Your task to perform on an android device: Open the calendar app, open the side menu, and click the "Day" option Image 0: 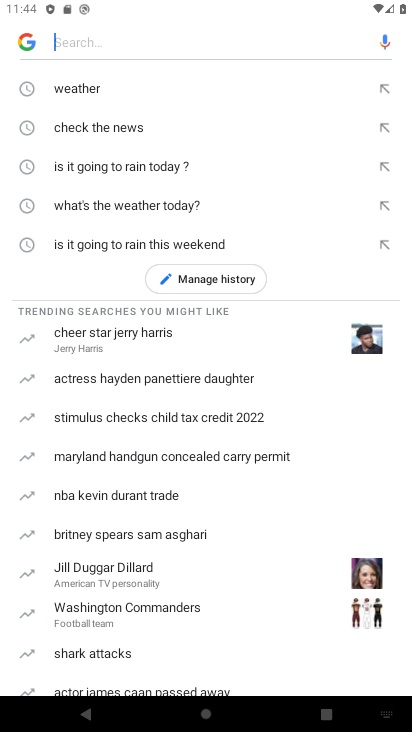
Step 0: press home button
Your task to perform on an android device: Open the calendar app, open the side menu, and click the "Day" option Image 1: 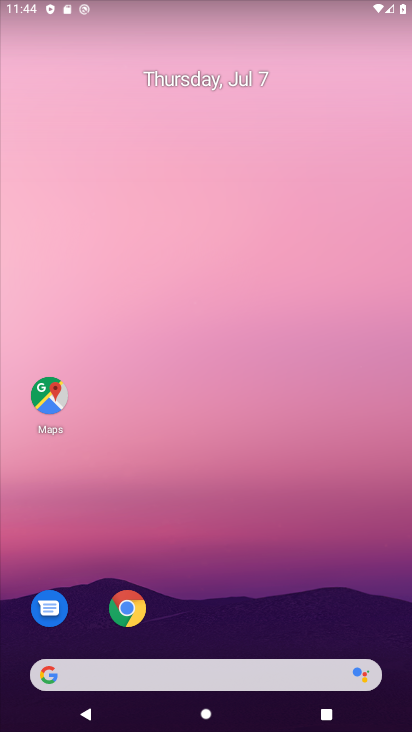
Step 1: drag from (276, 610) to (241, 3)
Your task to perform on an android device: Open the calendar app, open the side menu, and click the "Day" option Image 2: 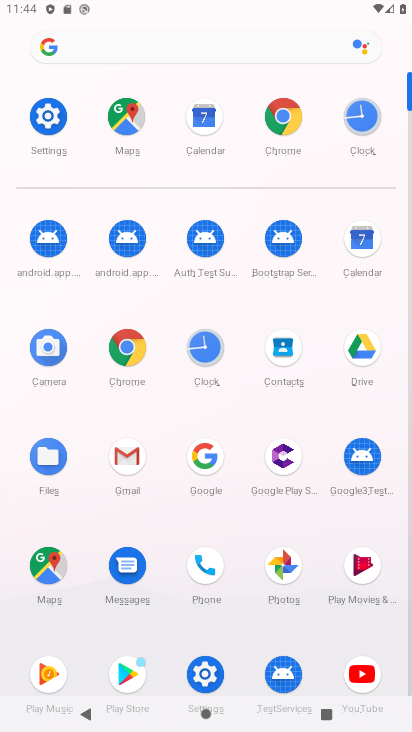
Step 2: click (360, 257)
Your task to perform on an android device: Open the calendar app, open the side menu, and click the "Day" option Image 3: 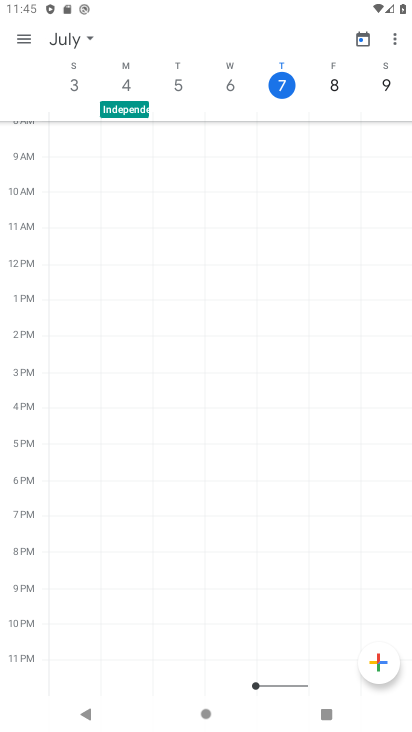
Step 3: click (24, 51)
Your task to perform on an android device: Open the calendar app, open the side menu, and click the "Day" option Image 4: 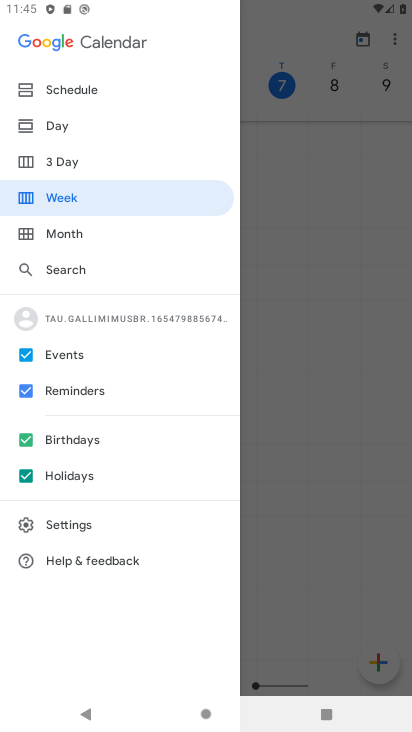
Step 4: click (57, 127)
Your task to perform on an android device: Open the calendar app, open the side menu, and click the "Day" option Image 5: 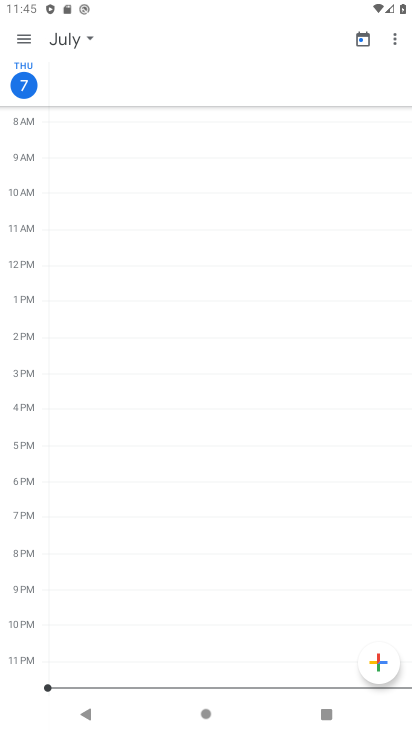
Step 5: task complete